Your task to perform on an android device: install app "Clock" Image 0: 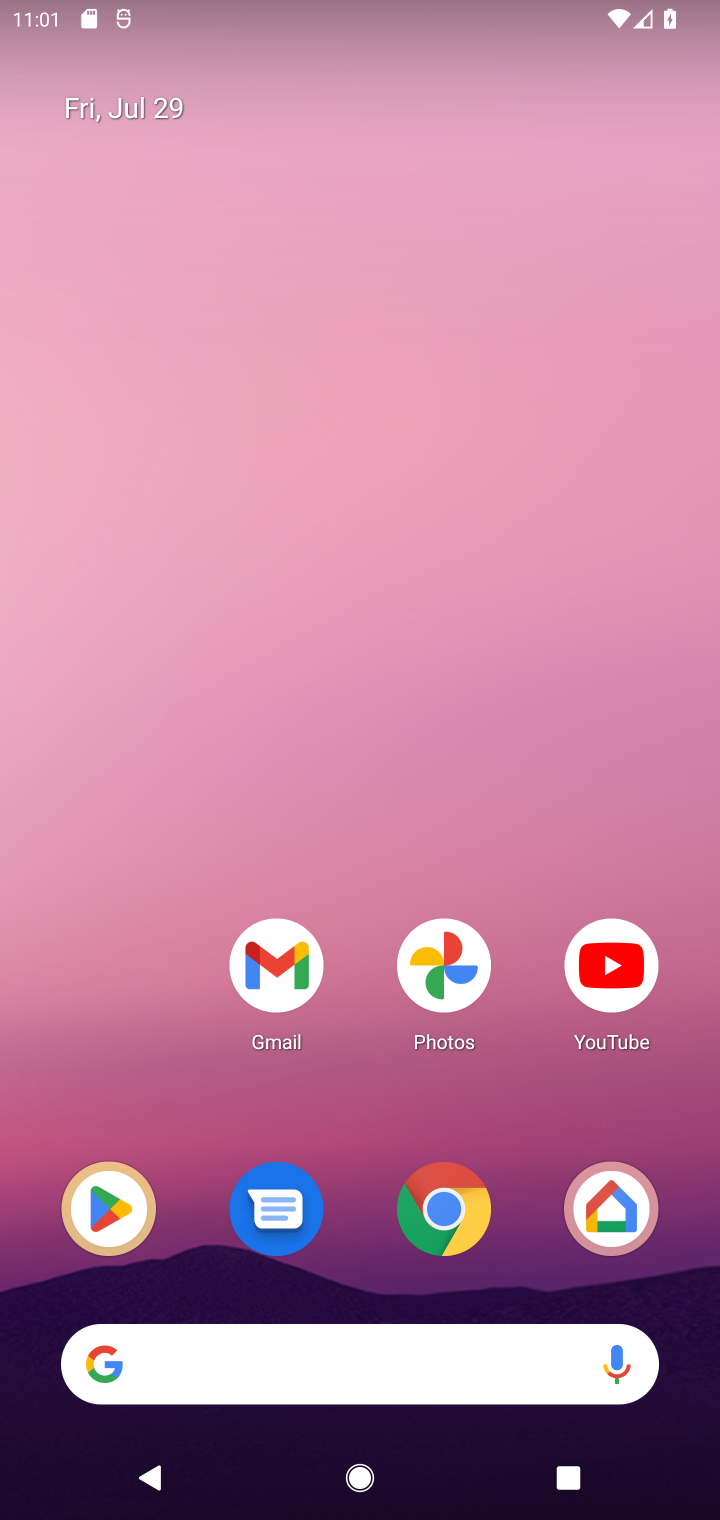
Step 0: drag from (516, 1110) to (492, 109)
Your task to perform on an android device: install app "Clock" Image 1: 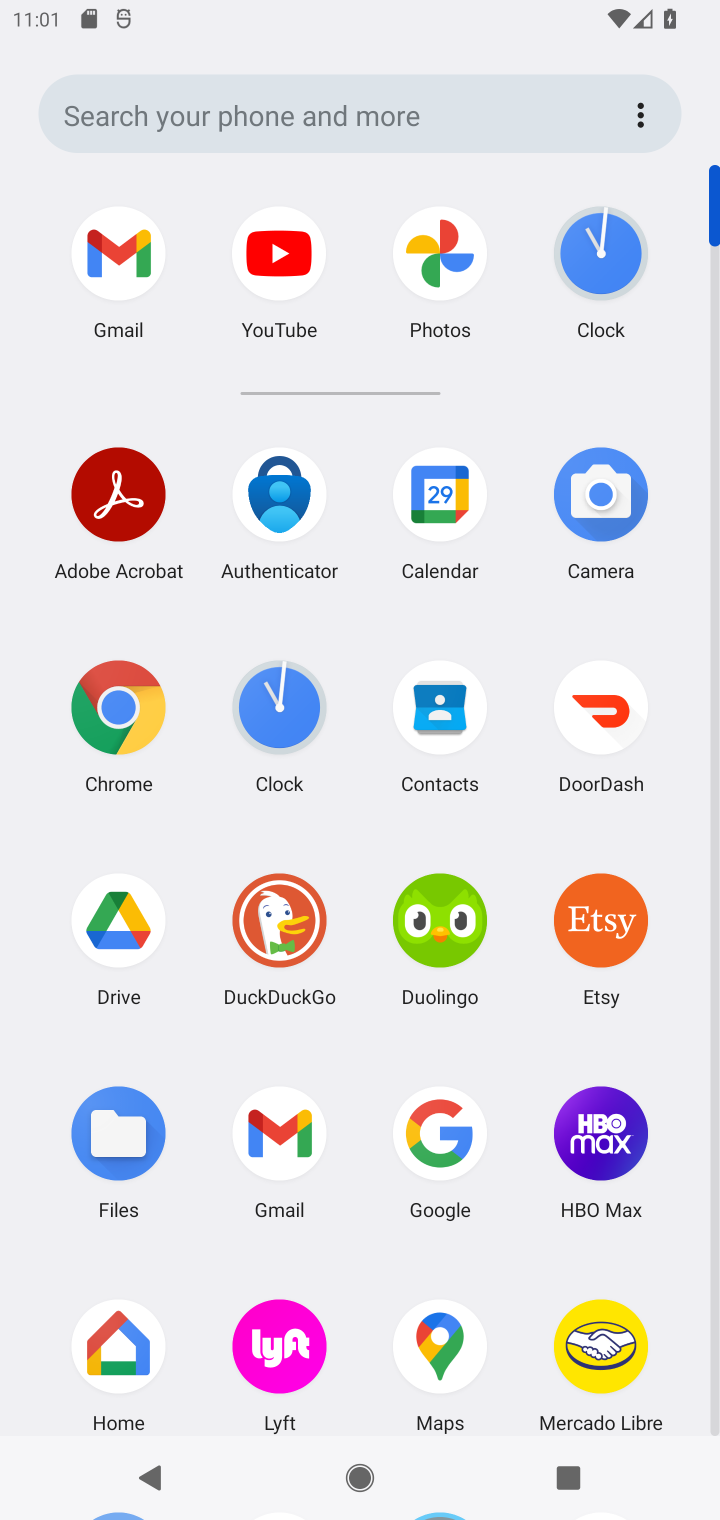
Step 1: drag from (492, 1174) to (479, 557)
Your task to perform on an android device: install app "Clock" Image 2: 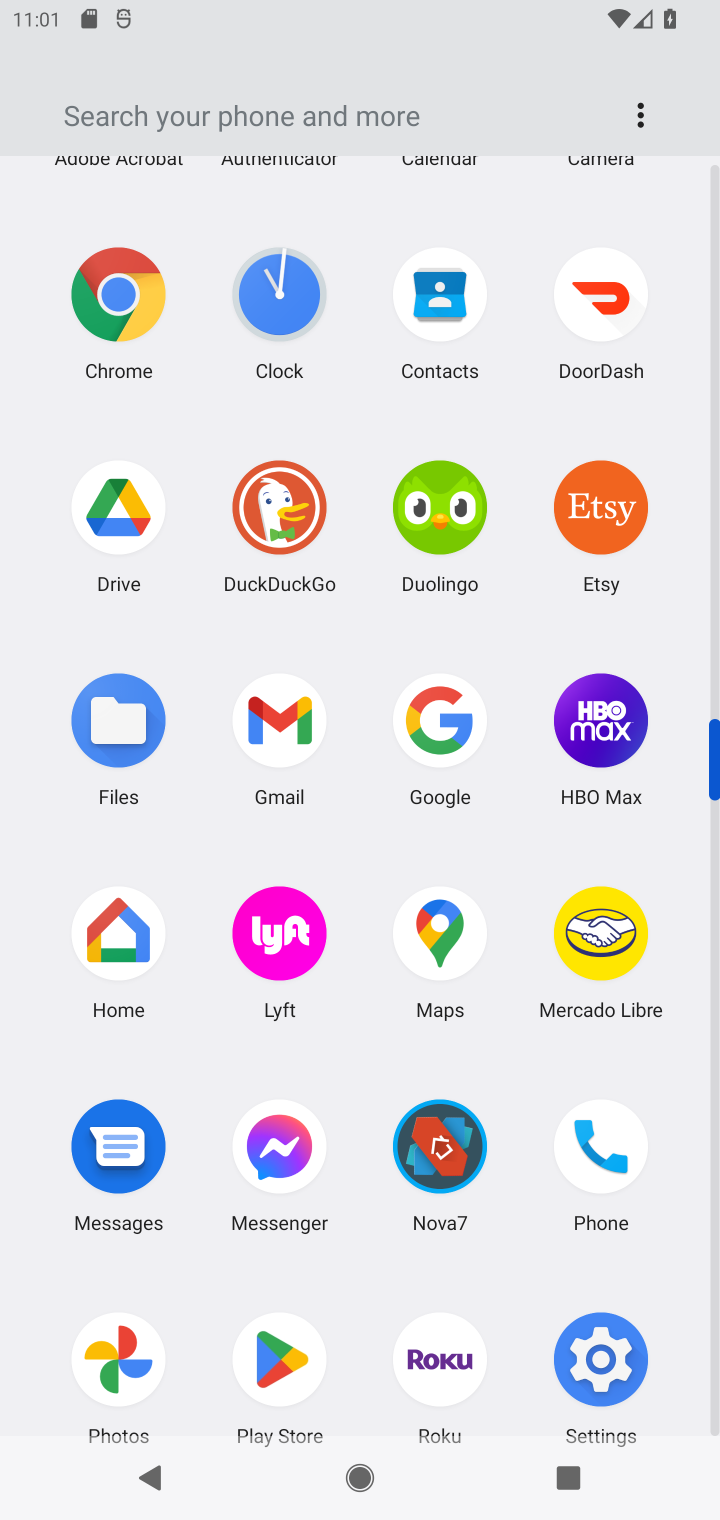
Step 2: click (270, 1361)
Your task to perform on an android device: install app "Clock" Image 3: 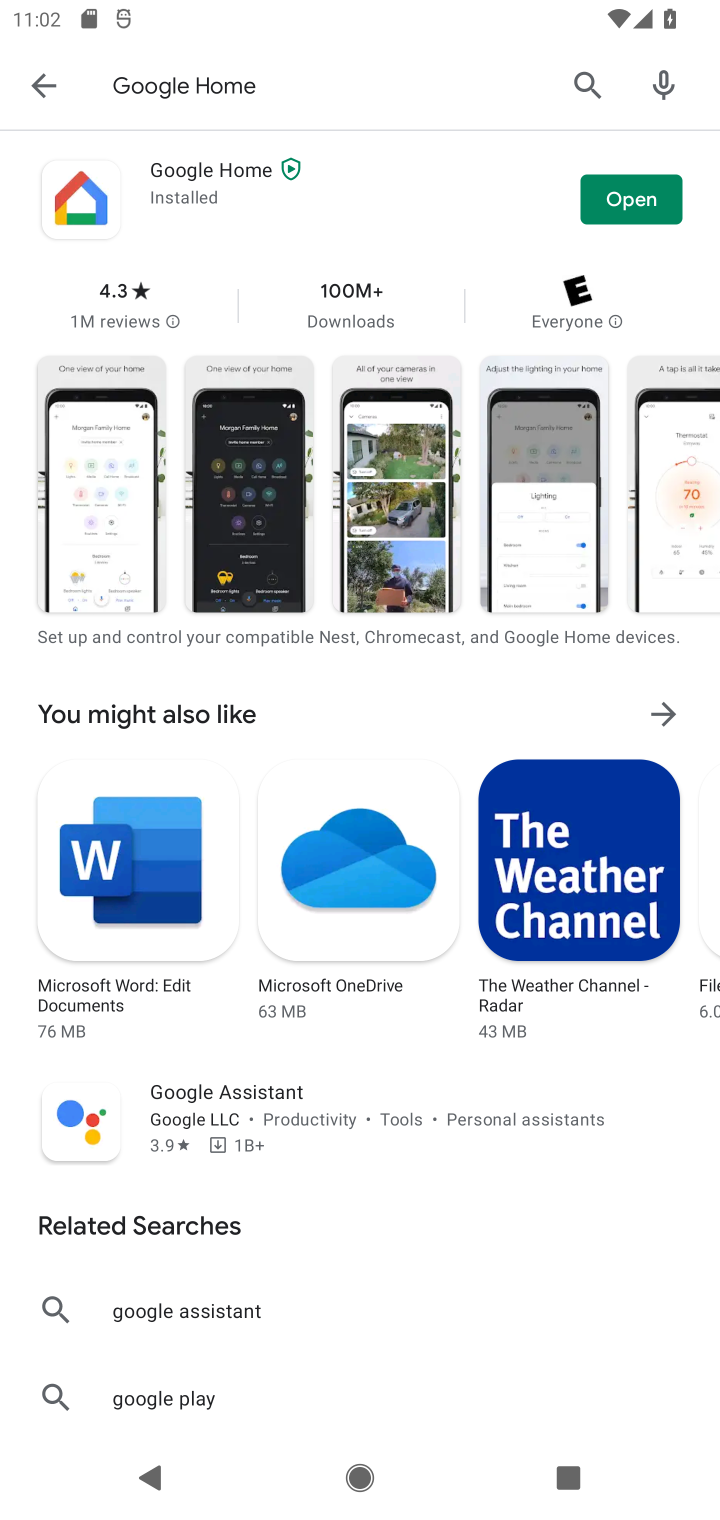
Step 3: click (383, 75)
Your task to perform on an android device: install app "Clock" Image 4: 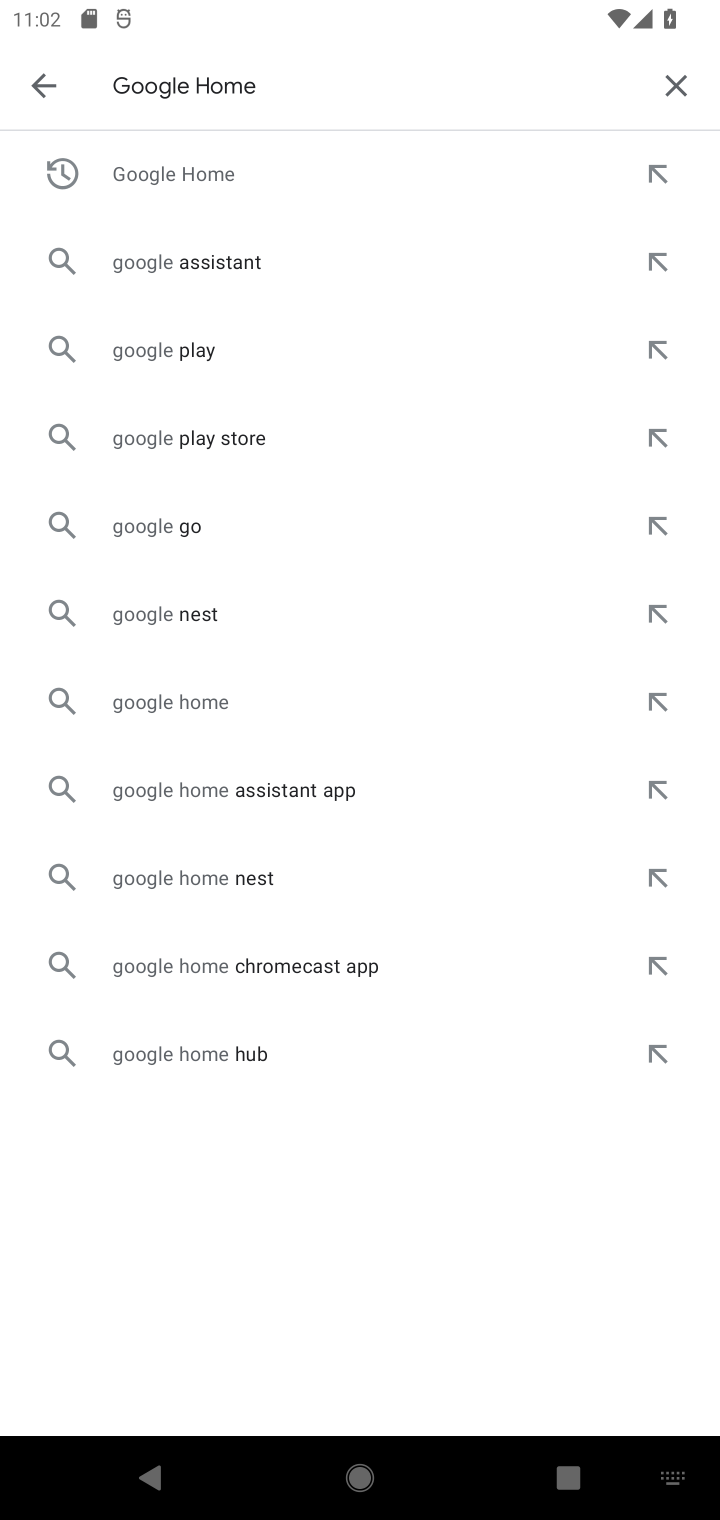
Step 4: click (676, 81)
Your task to perform on an android device: install app "Clock" Image 5: 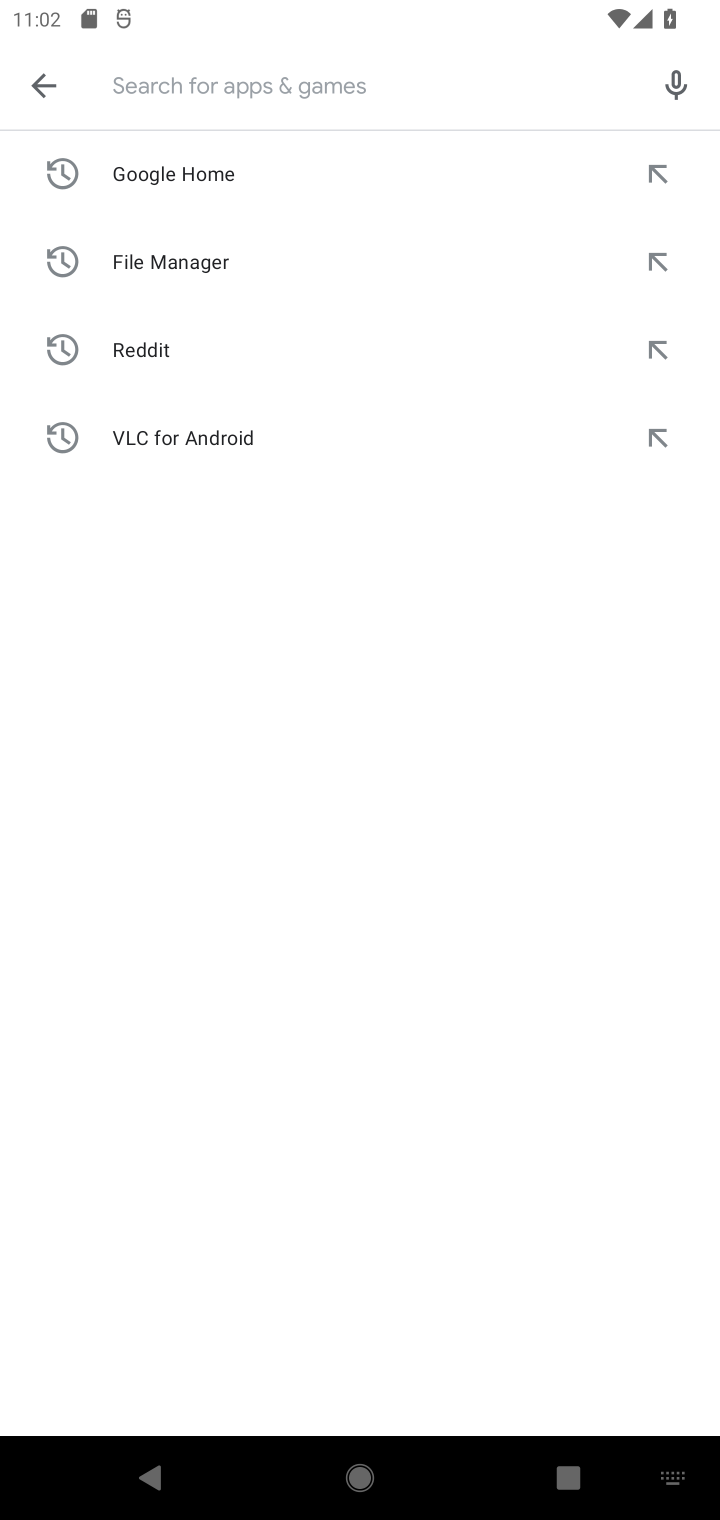
Step 5: type "clock"
Your task to perform on an android device: install app "Clock" Image 6: 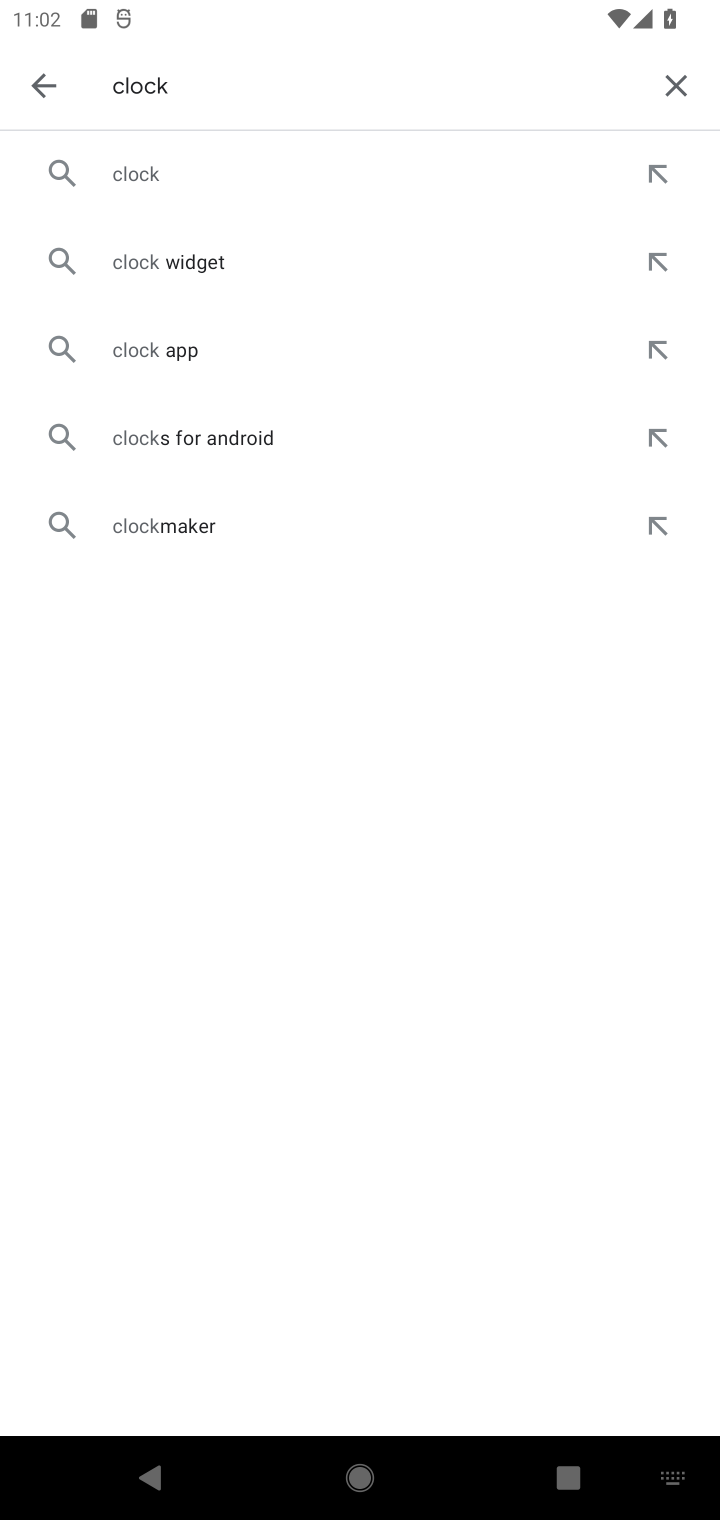
Step 6: press enter
Your task to perform on an android device: install app "Clock" Image 7: 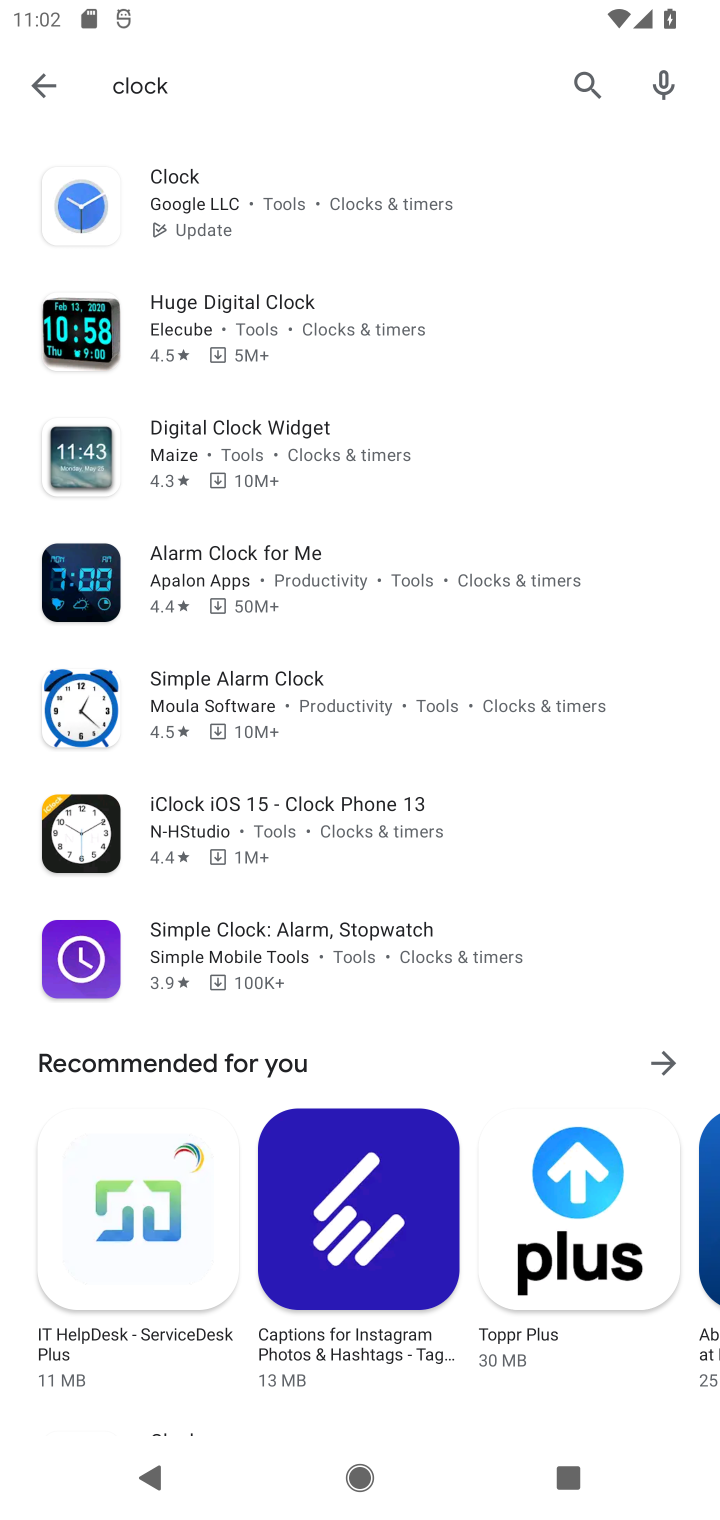
Step 7: click (222, 165)
Your task to perform on an android device: install app "Clock" Image 8: 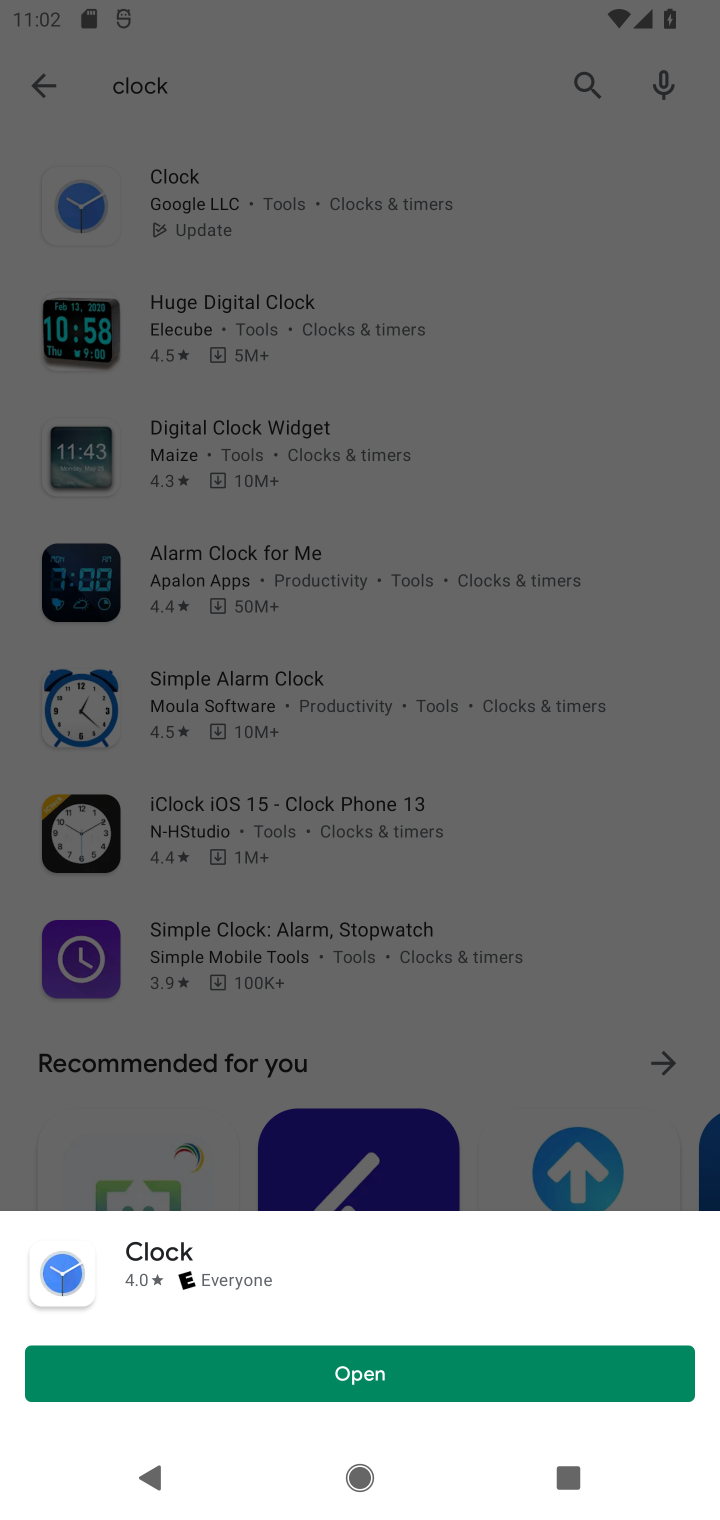
Step 8: task complete